Your task to perform on an android device: change the clock display to analog Image 0: 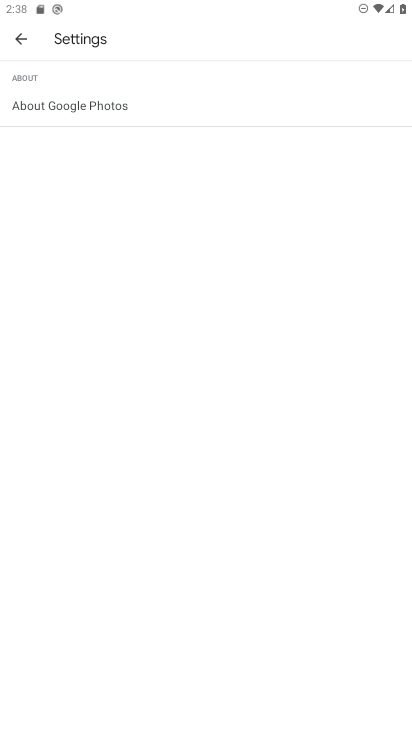
Step 0: press home button
Your task to perform on an android device: change the clock display to analog Image 1: 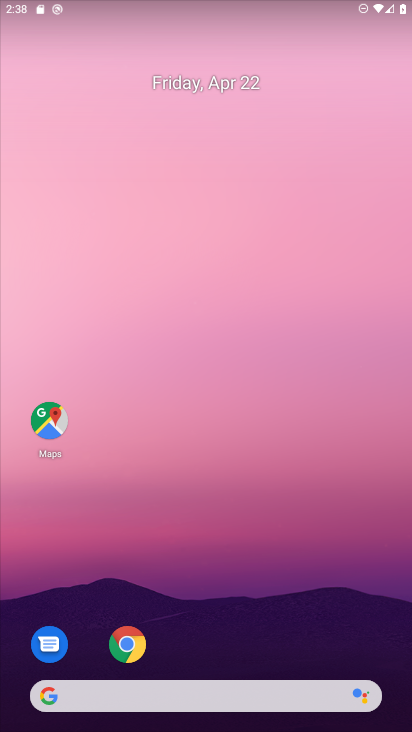
Step 1: drag from (315, 440) to (298, 133)
Your task to perform on an android device: change the clock display to analog Image 2: 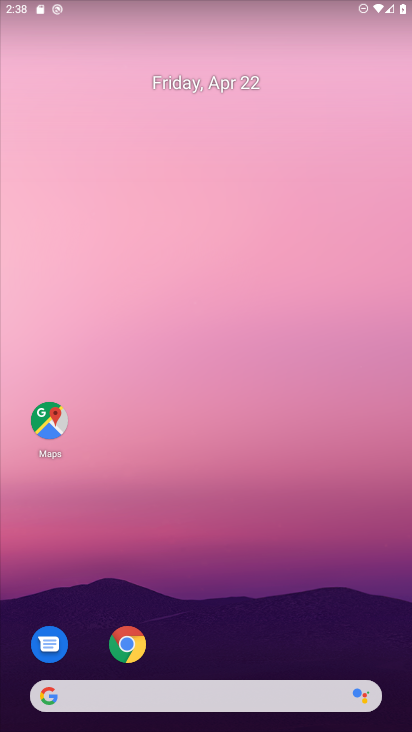
Step 2: drag from (318, 334) to (334, 82)
Your task to perform on an android device: change the clock display to analog Image 3: 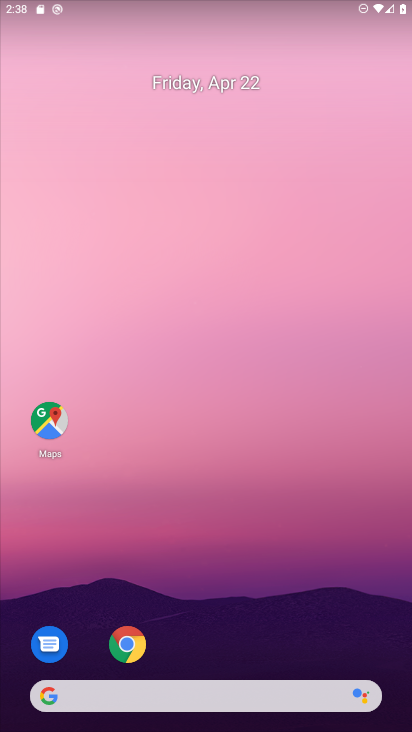
Step 3: drag from (323, 531) to (330, 78)
Your task to perform on an android device: change the clock display to analog Image 4: 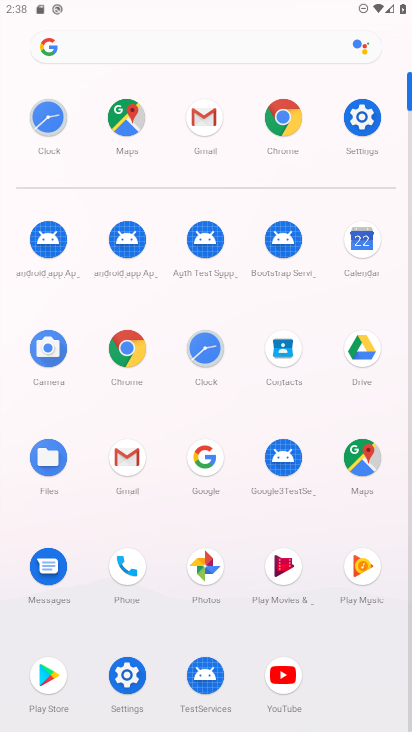
Step 4: click (198, 349)
Your task to perform on an android device: change the clock display to analog Image 5: 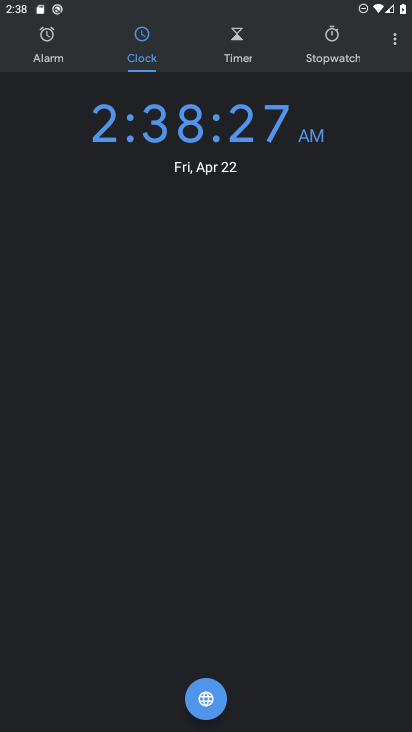
Step 5: click (395, 40)
Your task to perform on an android device: change the clock display to analog Image 6: 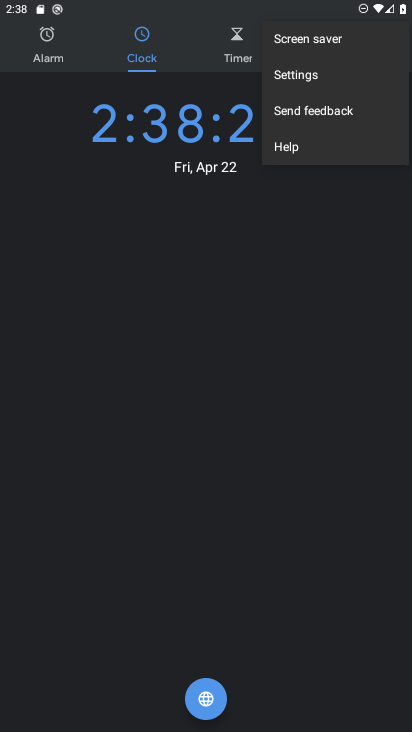
Step 6: click (303, 77)
Your task to perform on an android device: change the clock display to analog Image 7: 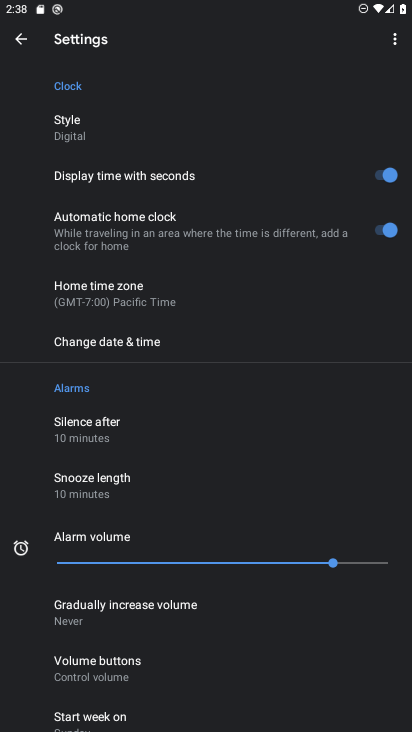
Step 7: click (84, 125)
Your task to perform on an android device: change the clock display to analog Image 8: 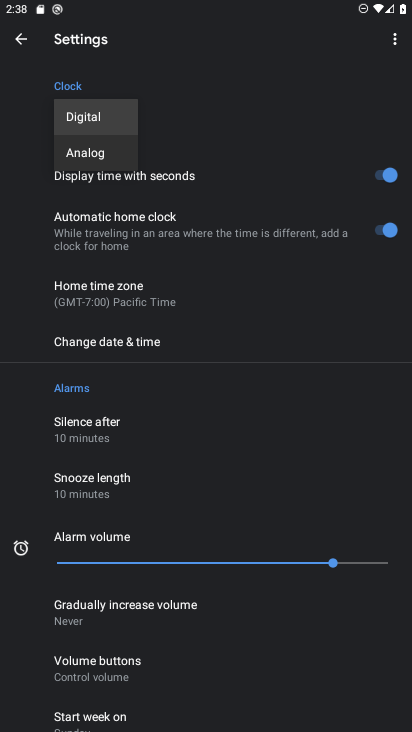
Step 8: click (116, 150)
Your task to perform on an android device: change the clock display to analog Image 9: 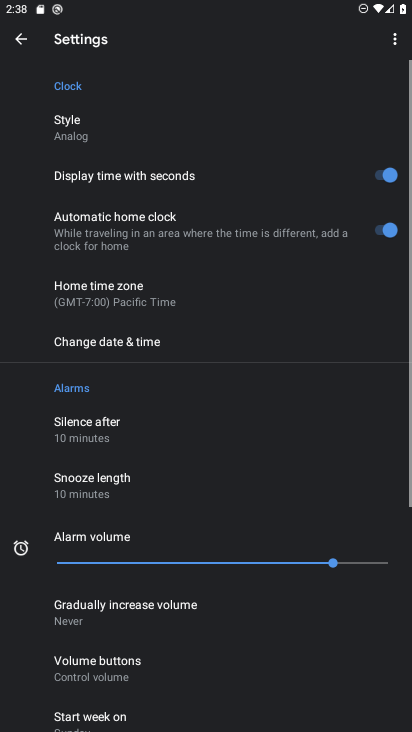
Step 9: task complete